Your task to perform on an android device: turn on improve location accuracy Image 0: 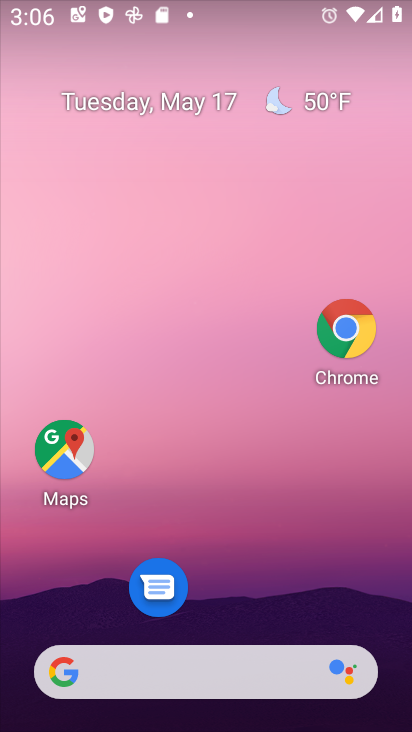
Step 0: drag from (269, 594) to (211, 183)
Your task to perform on an android device: turn on improve location accuracy Image 1: 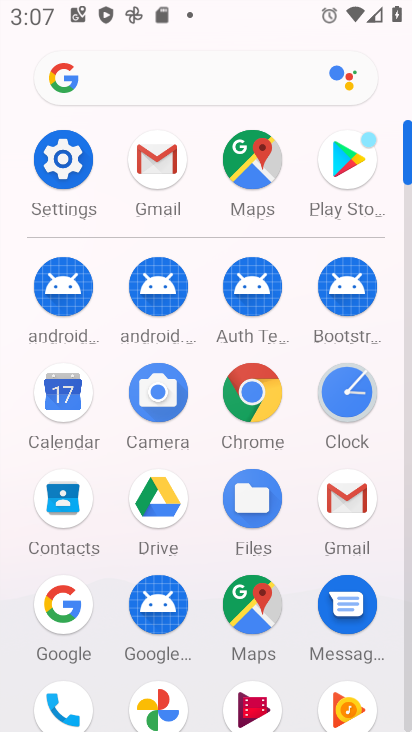
Step 1: click (85, 176)
Your task to perform on an android device: turn on improve location accuracy Image 2: 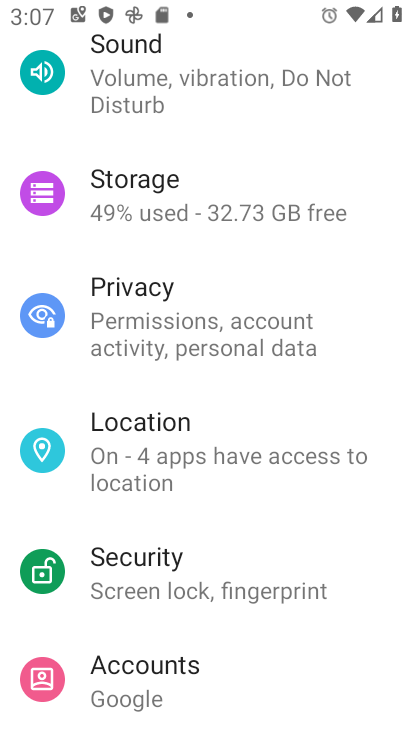
Step 2: click (248, 461)
Your task to perform on an android device: turn on improve location accuracy Image 3: 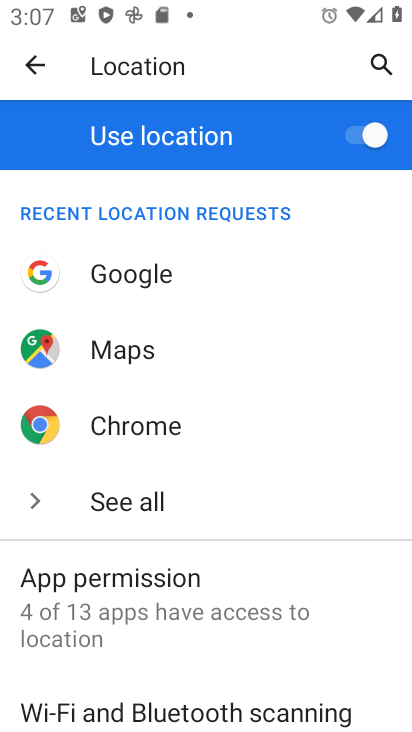
Step 3: drag from (166, 573) to (171, 307)
Your task to perform on an android device: turn on improve location accuracy Image 4: 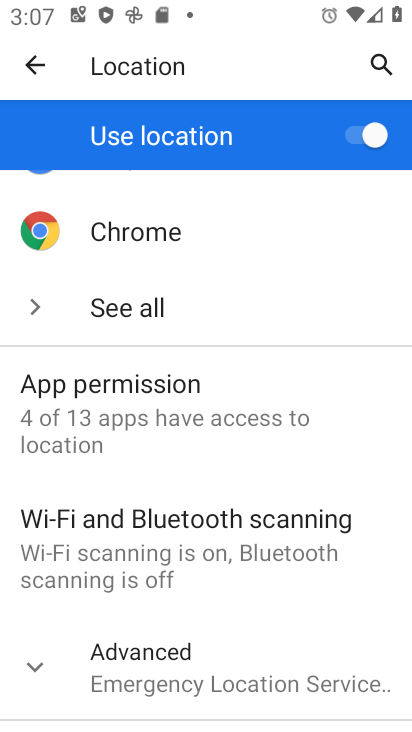
Step 4: click (149, 662)
Your task to perform on an android device: turn on improve location accuracy Image 5: 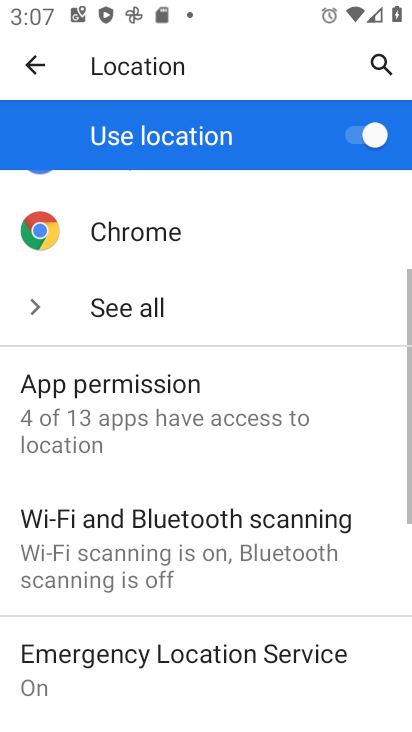
Step 5: drag from (243, 597) to (250, 361)
Your task to perform on an android device: turn on improve location accuracy Image 6: 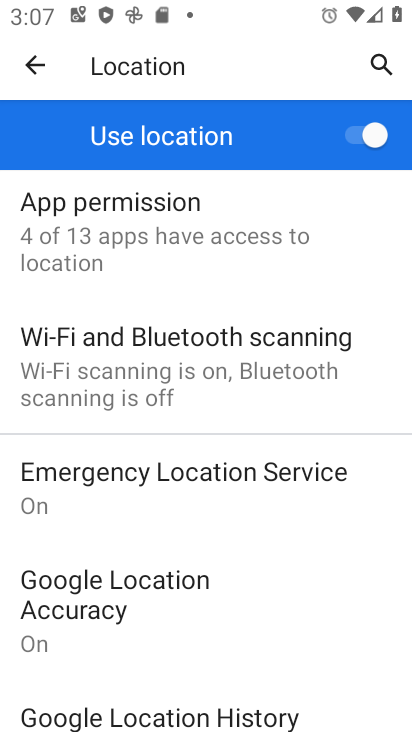
Step 6: drag from (160, 706) to (164, 477)
Your task to perform on an android device: turn on improve location accuracy Image 7: 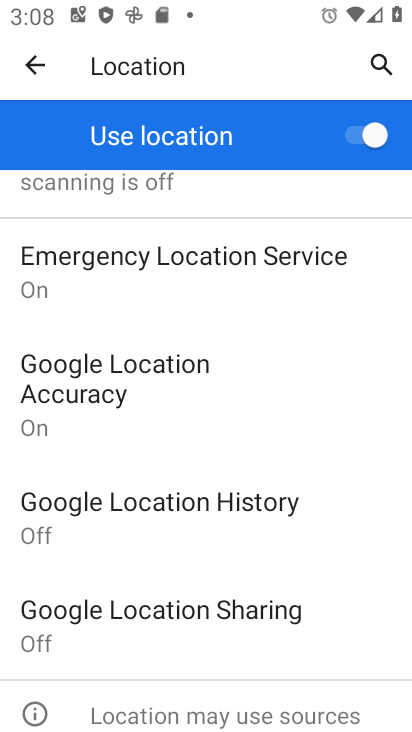
Step 7: click (77, 384)
Your task to perform on an android device: turn on improve location accuracy Image 8: 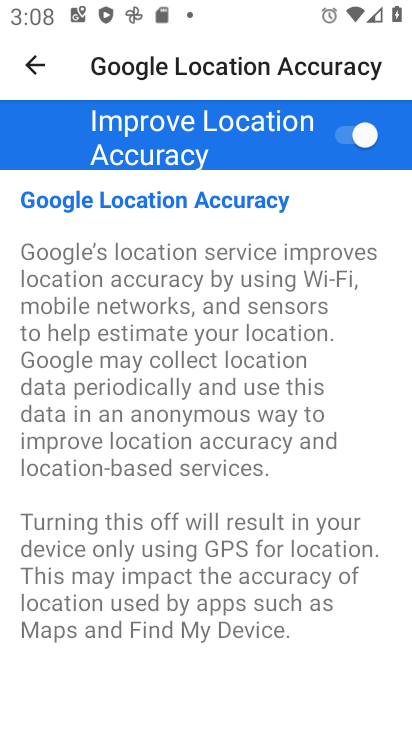
Step 8: task complete